Your task to perform on an android device: Open Yahoo.com Image 0: 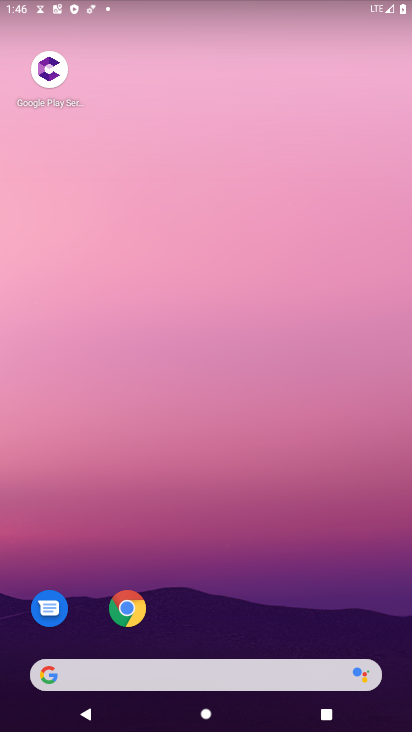
Step 0: drag from (190, 208) to (187, 43)
Your task to perform on an android device: Open Yahoo.com Image 1: 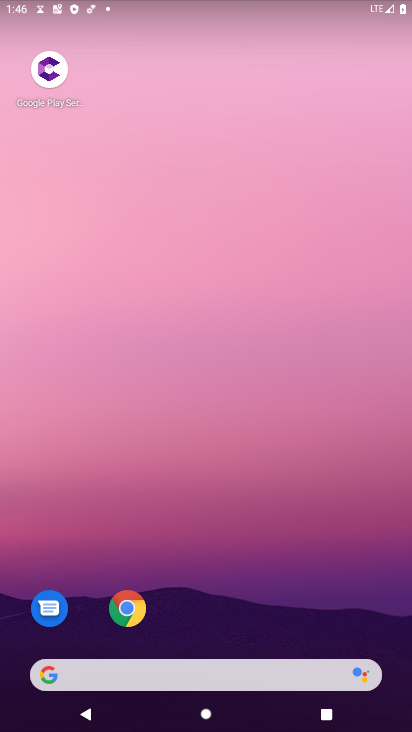
Step 1: drag from (287, 610) to (159, 56)
Your task to perform on an android device: Open Yahoo.com Image 2: 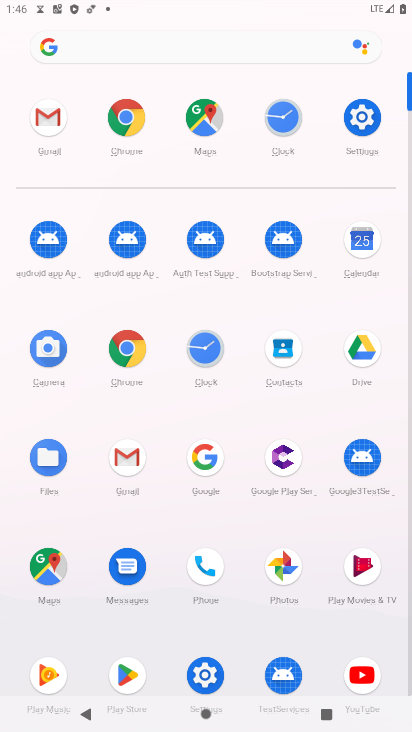
Step 2: click (141, 360)
Your task to perform on an android device: Open Yahoo.com Image 3: 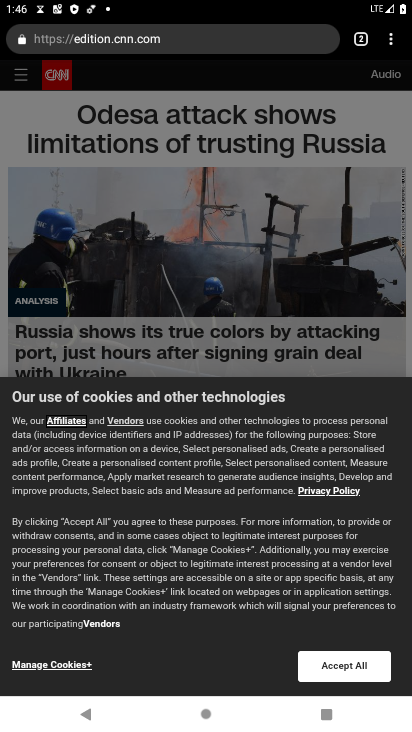
Step 3: click (380, 132)
Your task to perform on an android device: Open Yahoo.com Image 4: 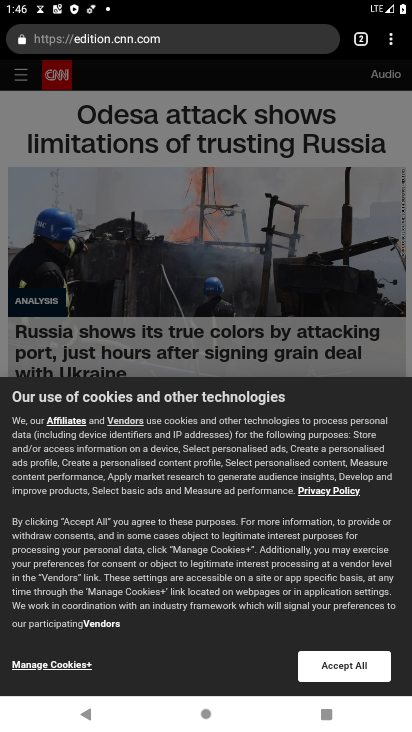
Step 4: click (367, 36)
Your task to perform on an android device: Open Yahoo.com Image 5: 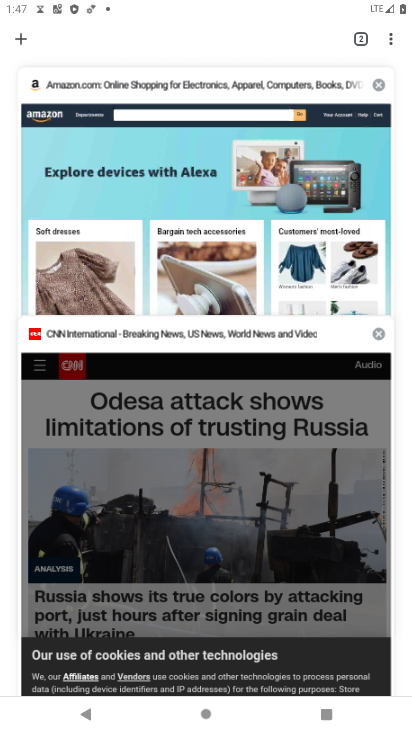
Step 5: click (25, 45)
Your task to perform on an android device: Open Yahoo.com Image 6: 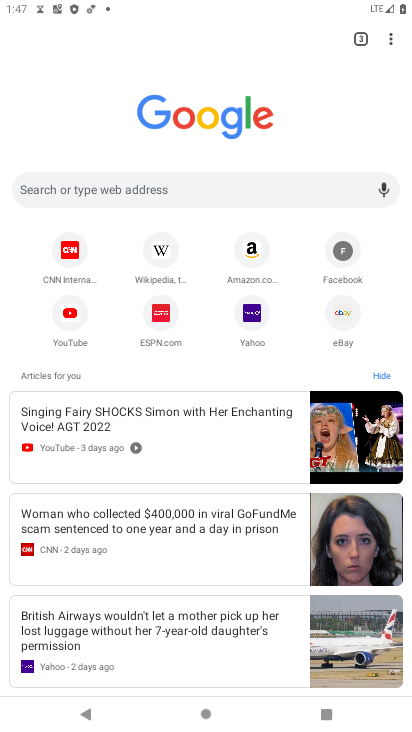
Step 6: click (261, 314)
Your task to perform on an android device: Open Yahoo.com Image 7: 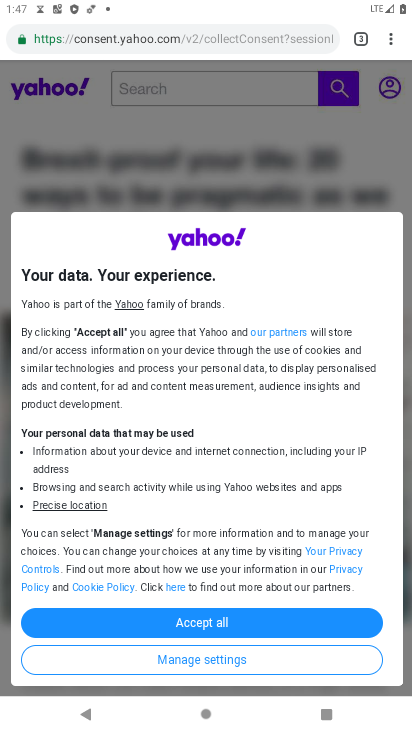
Step 7: press home button
Your task to perform on an android device: Open Yahoo.com Image 8: 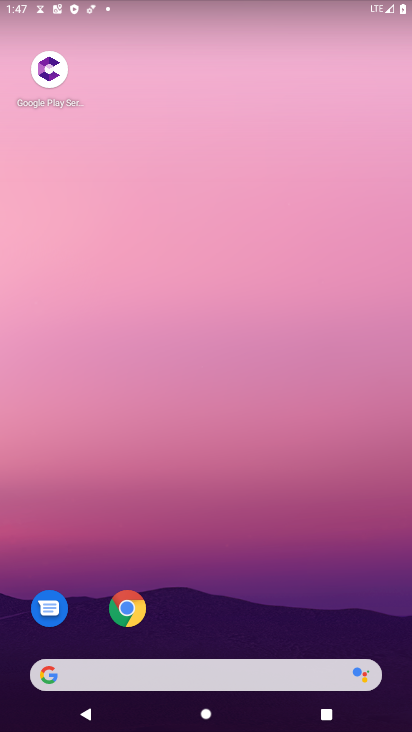
Step 8: drag from (299, 607) to (203, 62)
Your task to perform on an android device: Open Yahoo.com Image 9: 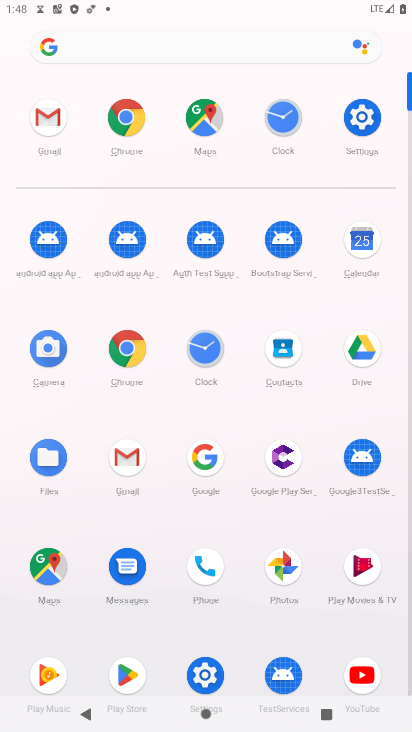
Step 9: click (134, 351)
Your task to perform on an android device: Open Yahoo.com Image 10: 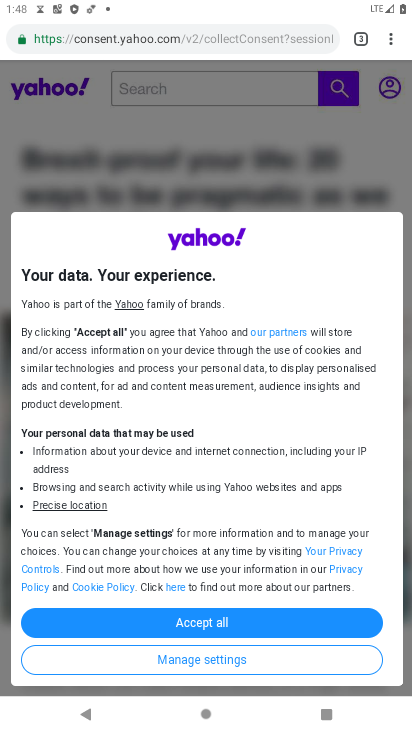
Step 10: task complete